Your task to perform on an android device: Open the phone app and click the voicemail tab. Image 0: 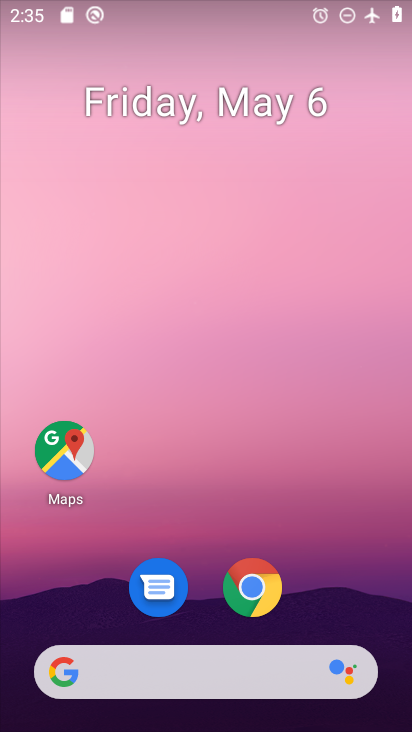
Step 0: drag from (316, 533) to (322, 54)
Your task to perform on an android device: Open the phone app and click the voicemail tab. Image 1: 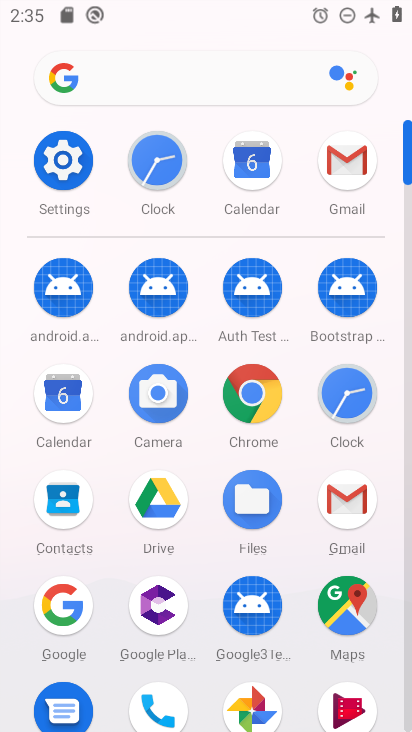
Step 1: drag from (202, 485) to (208, 314)
Your task to perform on an android device: Open the phone app and click the voicemail tab. Image 2: 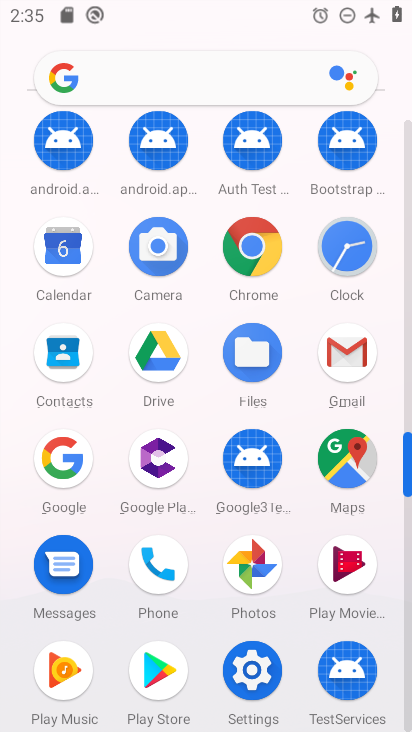
Step 2: click (171, 545)
Your task to perform on an android device: Open the phone app and click the voicemail tab. Image 3: 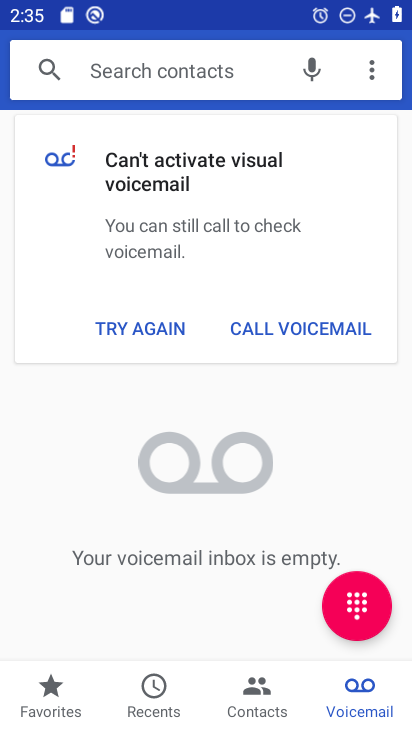
Step 3: click (354, 700)
Your task to perform on an android device: Open the phone app and click the voicemail tab. Image 4: 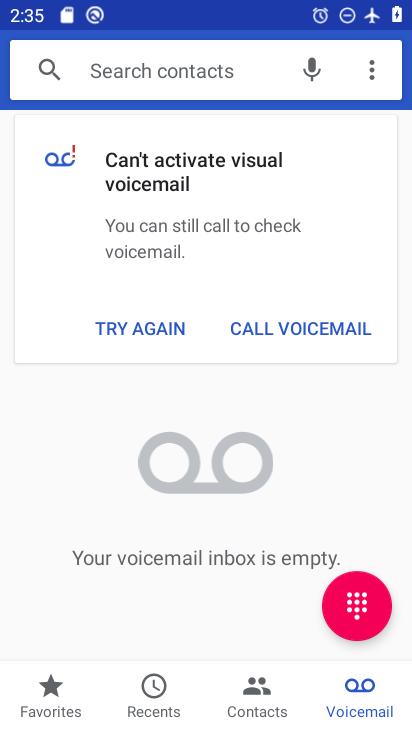
Step 4: task complete